Your task to perform on an android device: Is it going to rain today? Image 0: 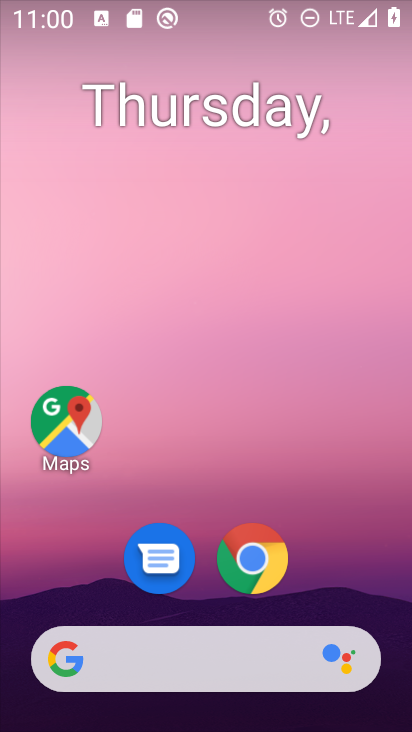
Step 0: drag from (7, 156) to (406, 196)
Your task to perform on an android device: Is it going to rain today? Image 1: 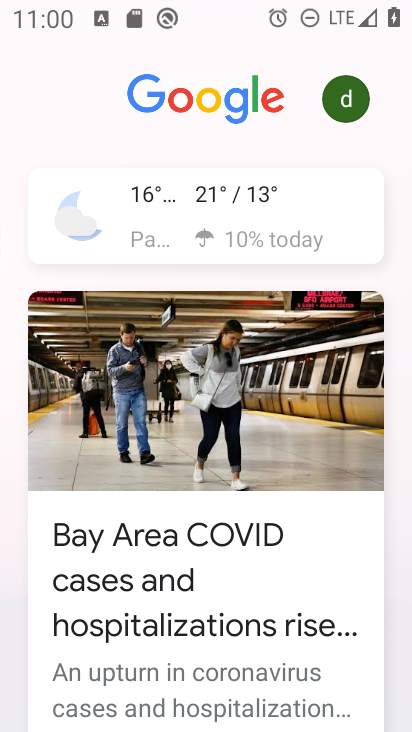
Step 1: click (218, 196)
Your task to perform on an android device: Is it going to rain today? Image 2: 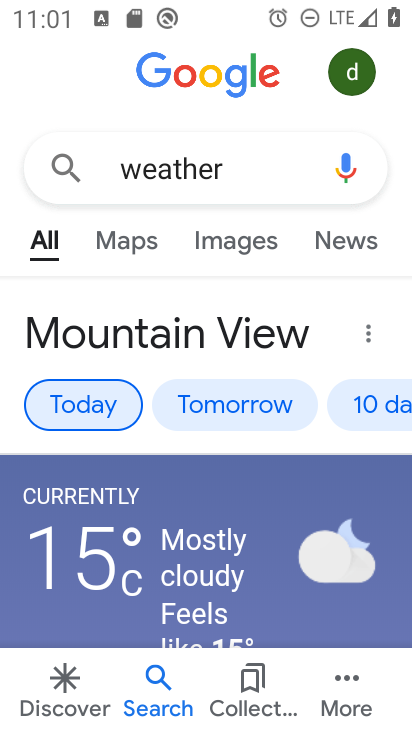
Step 2: task complete